Your task to perform on an android device: change the clock display to digital Image 0: 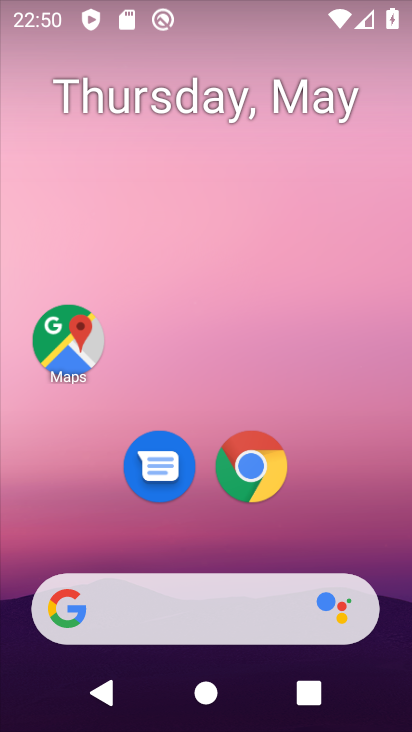
Step 0: drag from (316, 491) to (309, 92)
Your task to perform on an android device: change the clock display to digital Image 1: 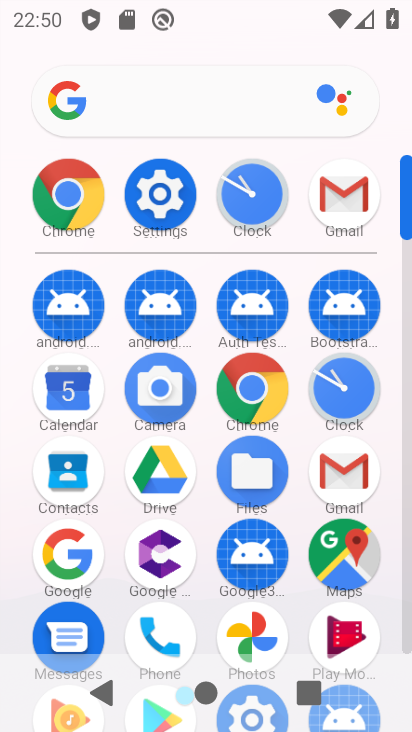
Step 1: click (341, 376)
Your task to perform on an android device: change the clock display to digital Image 2: 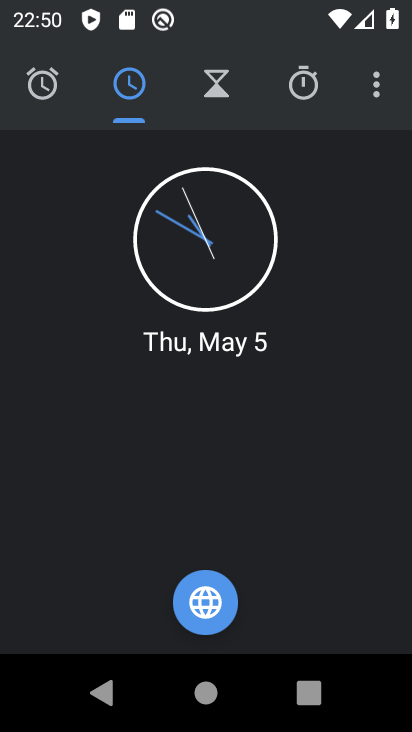
Step 2: click (376, 88)
Your task to perform on an android device: change the clock display to digital Image 3: 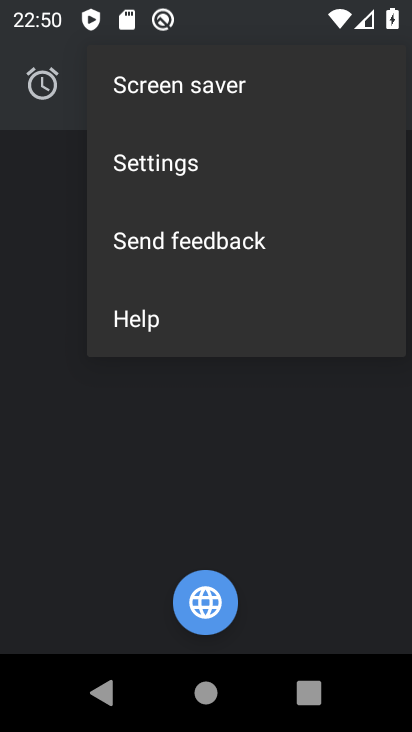
Step 3: click (224, 166)
Your task to perform on an android device: change the clock display to digital Image 4: 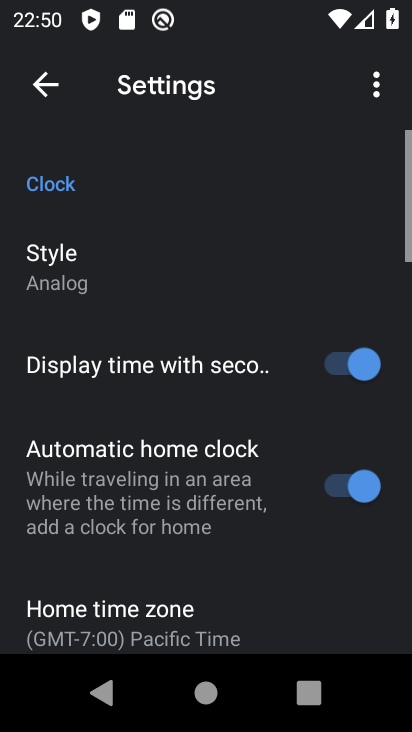
Step 4: click (81, 263)
Your task to perform on an android device: change the clock display to digital Image 5: 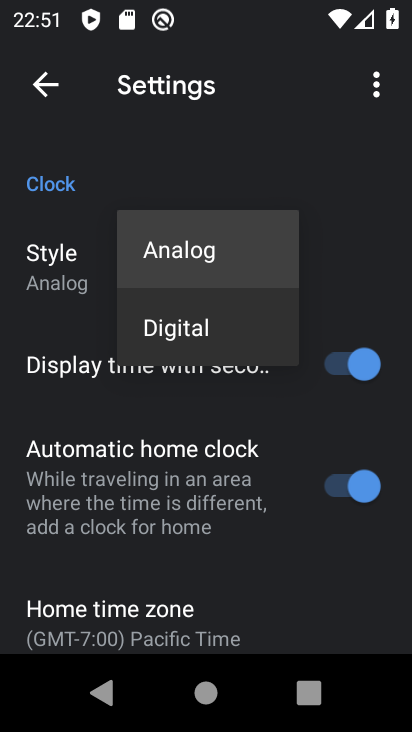
Step 5: click (177, 325)
Your task to perform on an android device: change the clock display to digital Image 6: 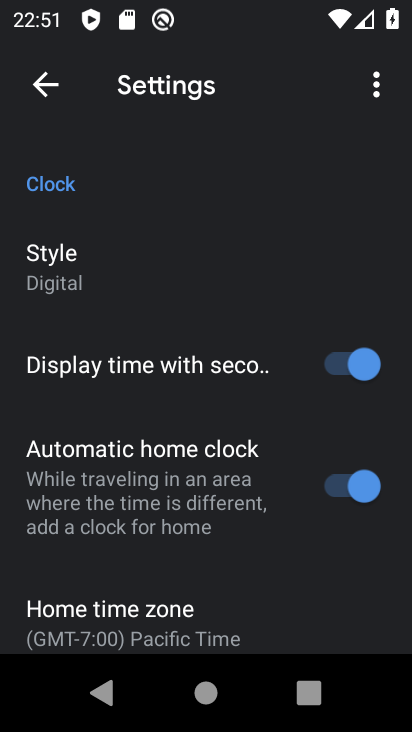
Step 6: task complete